Your task to perform on an android device: toggle data saver in the chrome app Image 0: 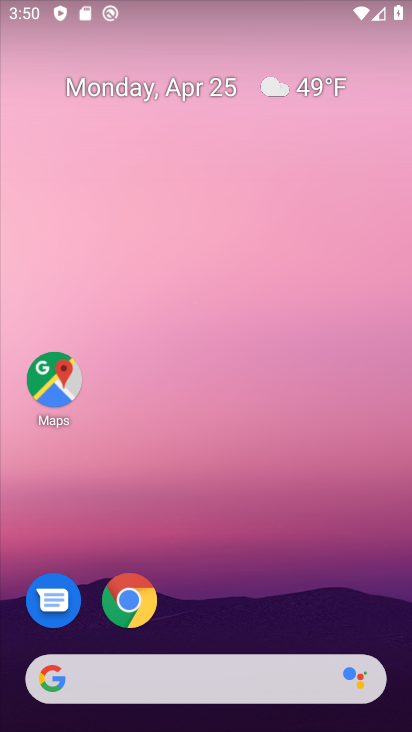
Step 0: click (133, 603)
Your task to perform on an android device: toggle data saver in the chrome app Image 1: 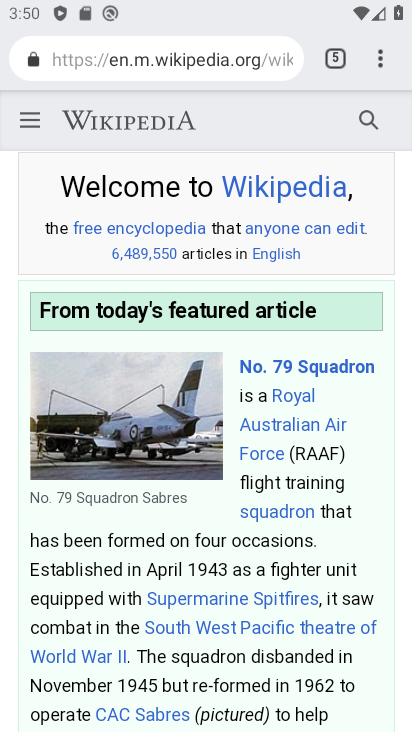
Step 1: click (379, 57)
Your task to perform on an android device: toggle data saver in the chrome app Image 2: 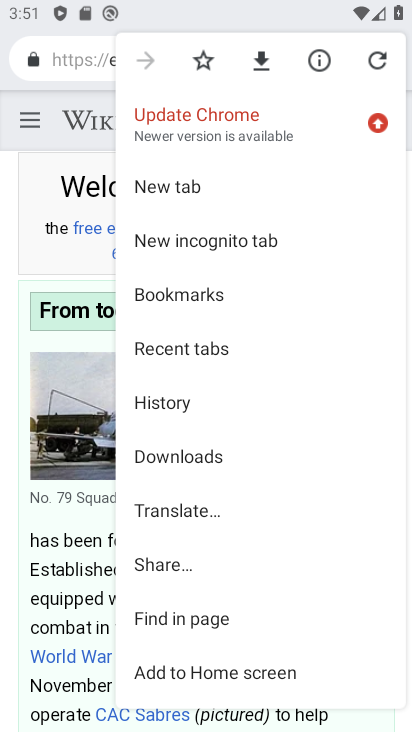
Step 2: drag from (238, 565) to (270, 294)
Your task to perform on an android device: toggle data saver in the chrome app Image 3: 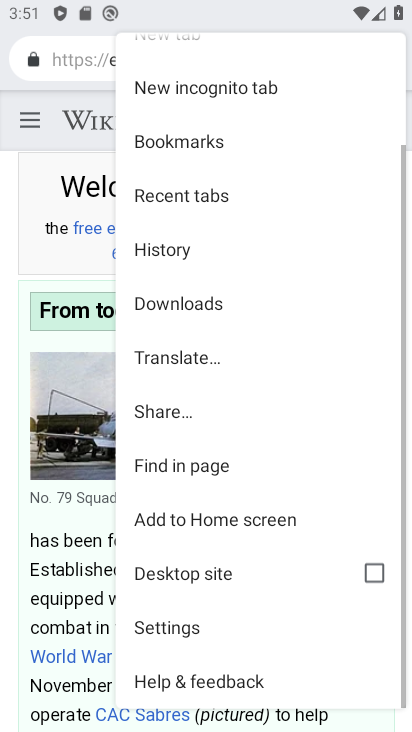
Step 3: click (197, 623)
Your task to perform on an android device: toggle data saver in the chrome app Image 4: 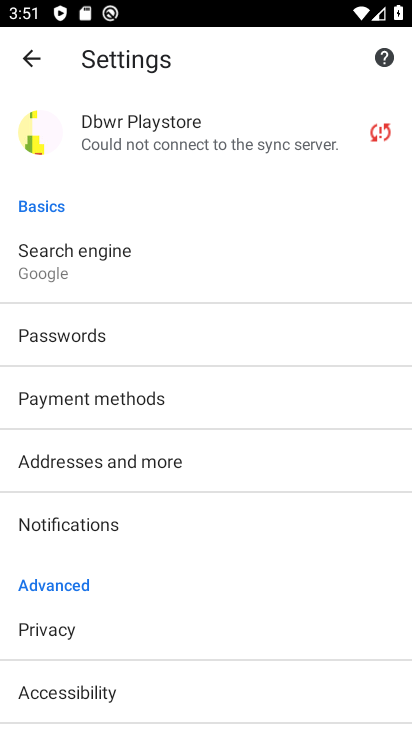
Step 4: drag from (210, 584) to (253, 172)
Your task to perform on an android device: toggle data saver in the chrome app Image 5: 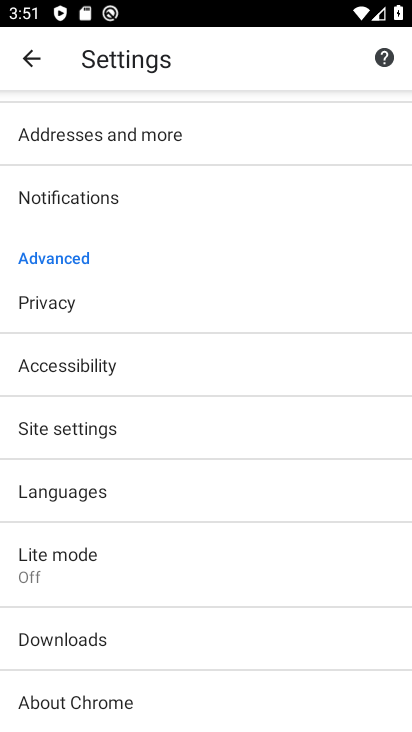
Step 5: click (162, 575)
Your task to perform on an android device: toggle data saver in the chrome app Image 6: 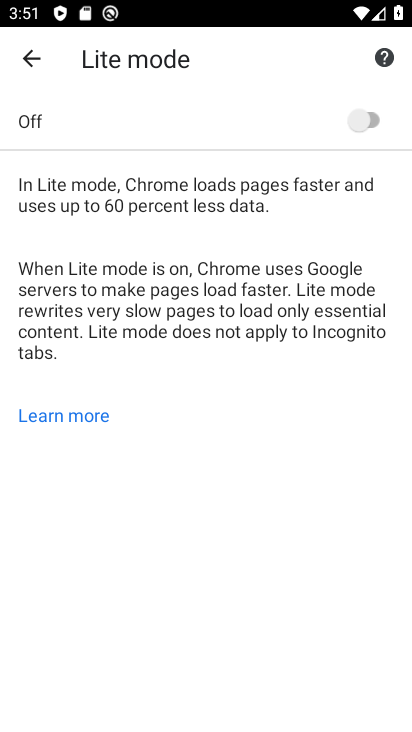
Step 6: click (370, 104)
Your task to perform on an android device: toggle data saver in the chrome app Image 7: 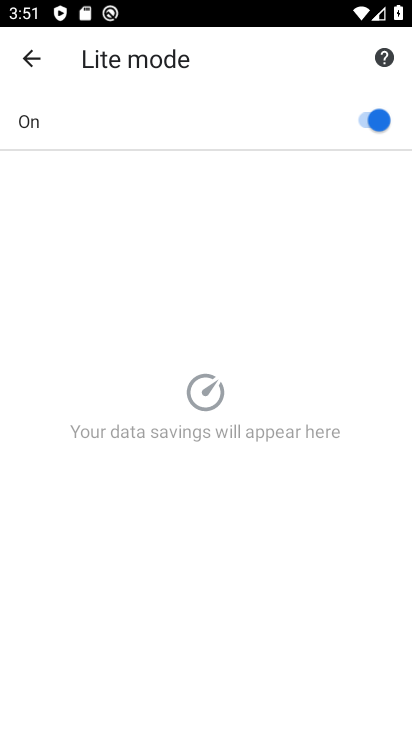
Step 7: task complete